Your task to perform on an android device: turn on improve location accuracy Image 0: 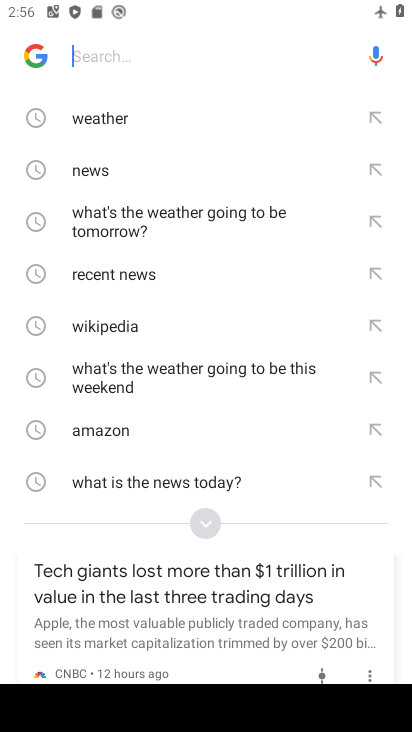
Step 0: press home button
Your task to perform on an android device: turn on improve location accuracy Image 1: 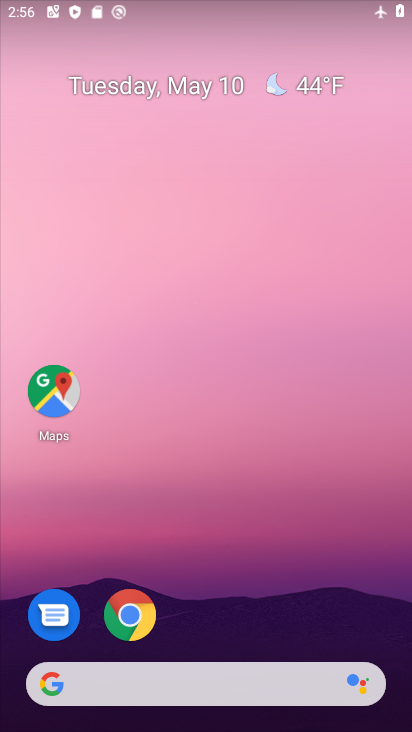
Step 1: drag from (237, 566) to (267, 8)
Your task to perform on an android device: turn on improve location accuracy Image 2: 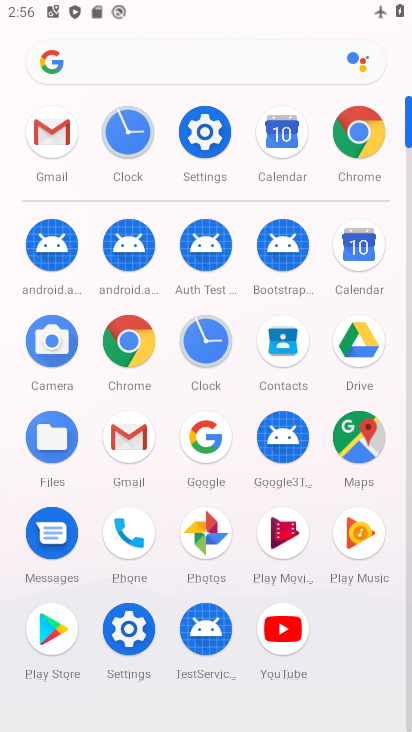
Step 2: click (226, 194)
Your task to perform on an android device: turn on improve location accuracy Image 3: 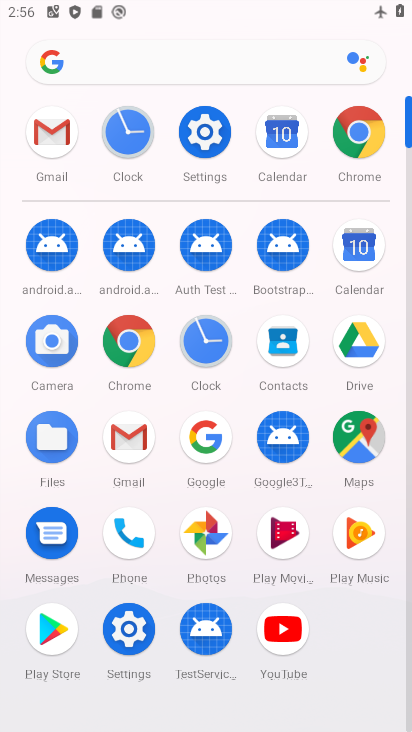
Step 3: click (224, 129)
Your task to perform on an android device: turn on improve location accuracy Image 4: 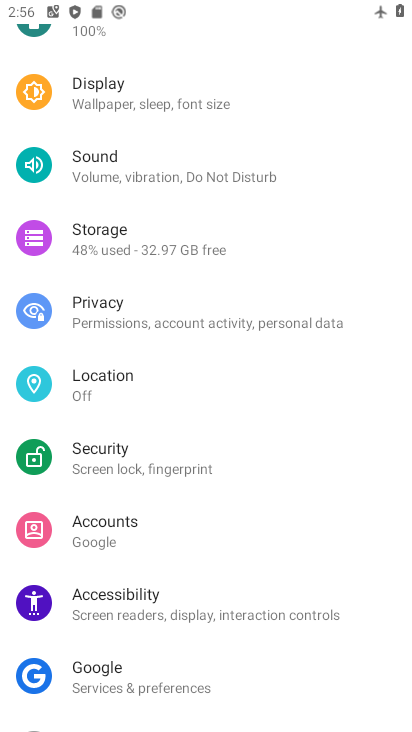
Step 4: click (102, 395)
Your task to perform on an android device: turn on improve location accuracy Image 5: 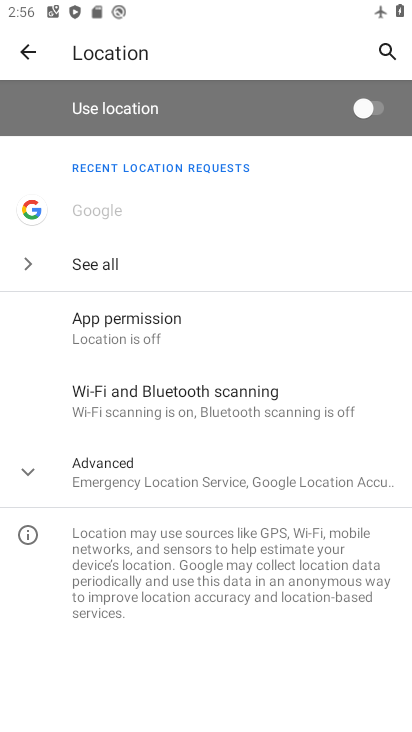
Step 5: click (157, 472)
Your task to perform on an android device: turn on improve location accuracy Image 6: 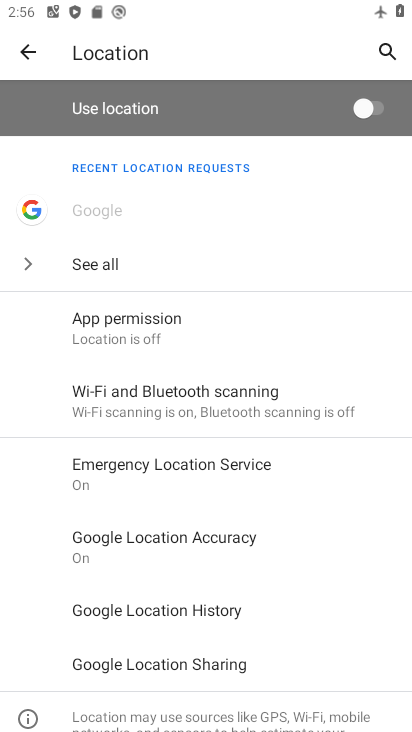
Step 6: click (126, 538)
Your task to perform on an android device: turn on improve location accuracy Image 7: 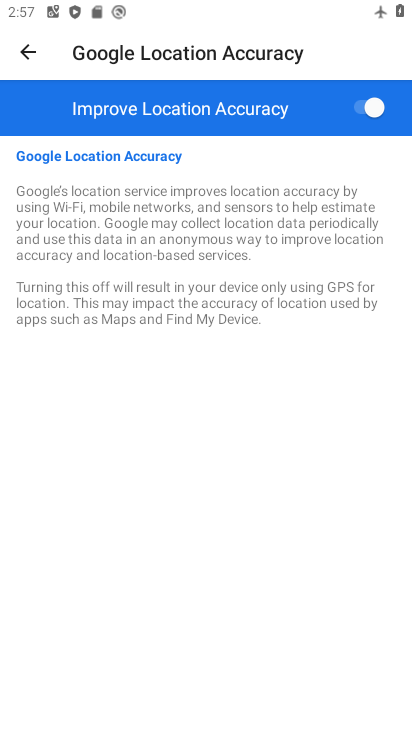
Step 7: task complete